Your task to perform on an android device: uninstall "Booking.com: Hotels and more" Image 0: 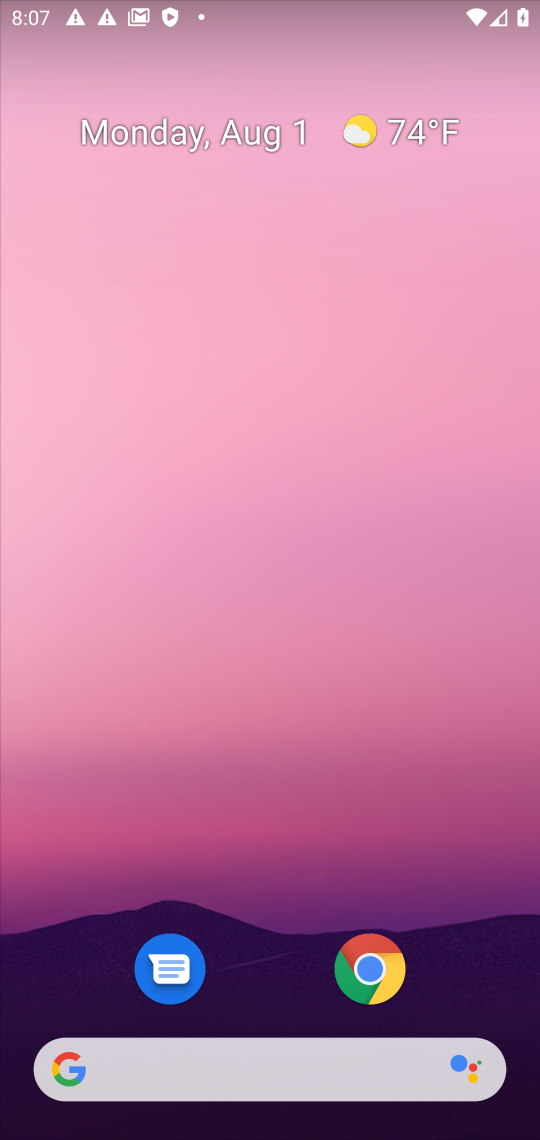
Step 0: drag from (239, 481) to (256, 173)
Your task to perform on an android device: uninstall "Booking.com: Hotels and more" Image 1: 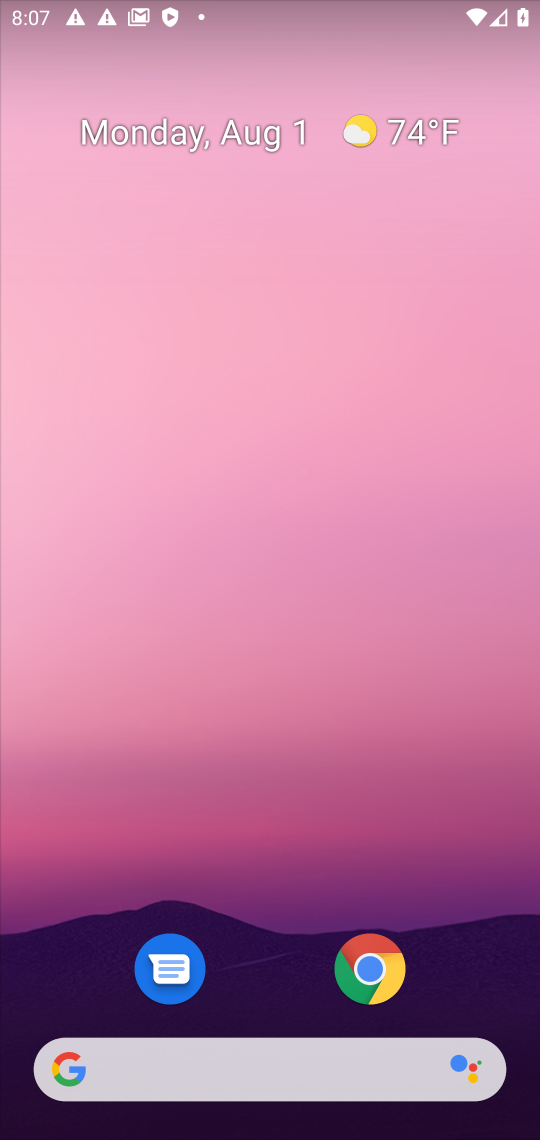
Step 1: drag from (275, 890) to (408, 0)
Your task to perform on an android device: uninstall "Booking.com: Hotels and more" Image 2: 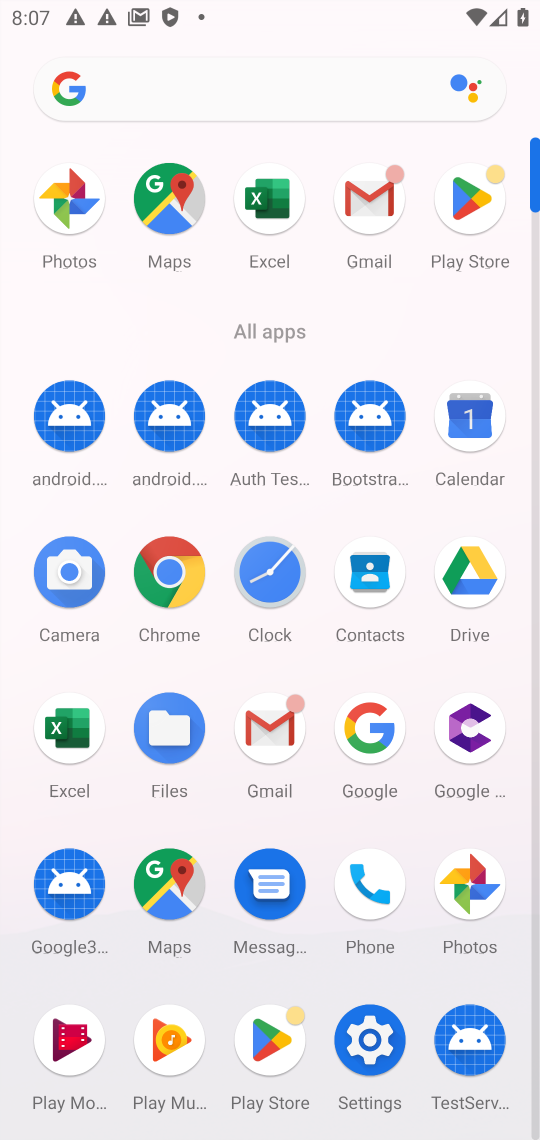
Step 2: click (463, 225)
Your task to perform on an android device: uninstall "Booking.com: Hotels and more" Image 3: 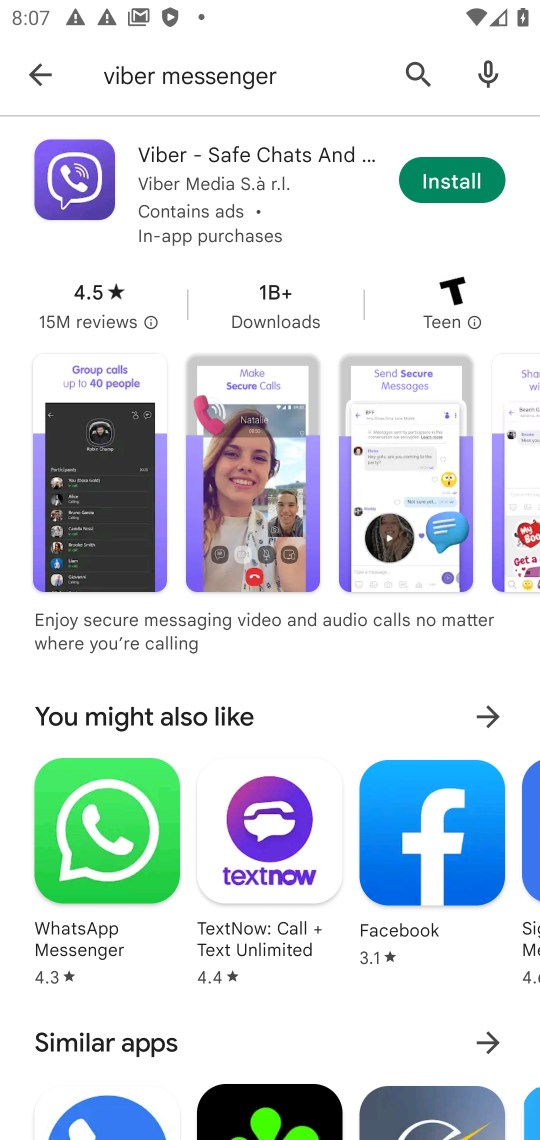
Step 3: click (35, 71)
Your task to perform on an android device: uninstall "Booking.com: Hotels and more" Image 4: 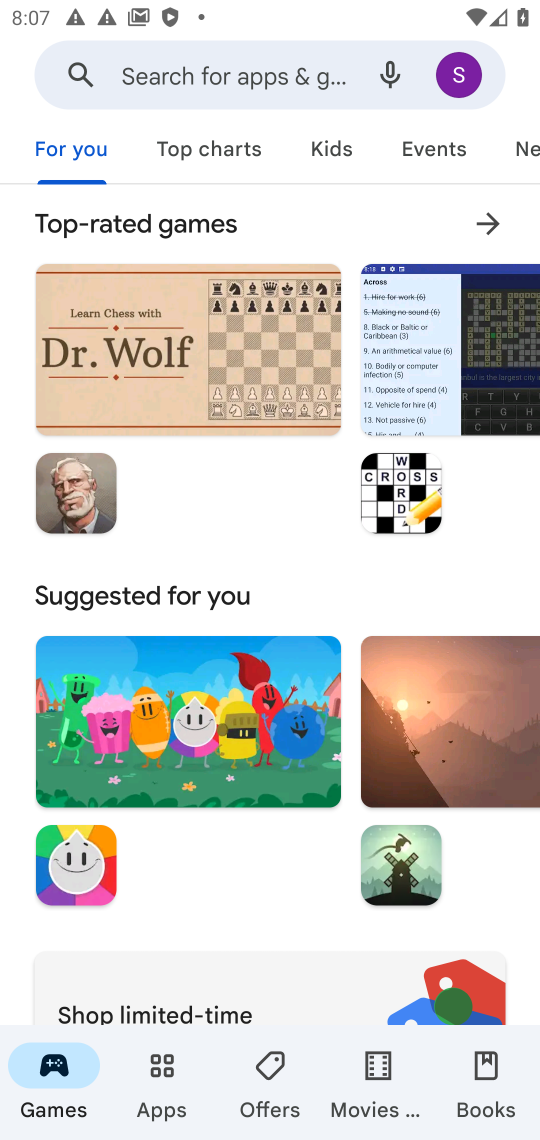
Step 4: click (241, 81)
Your task to perform on an android device: uninstall "Booking.com: Hotels and more" Image 5: 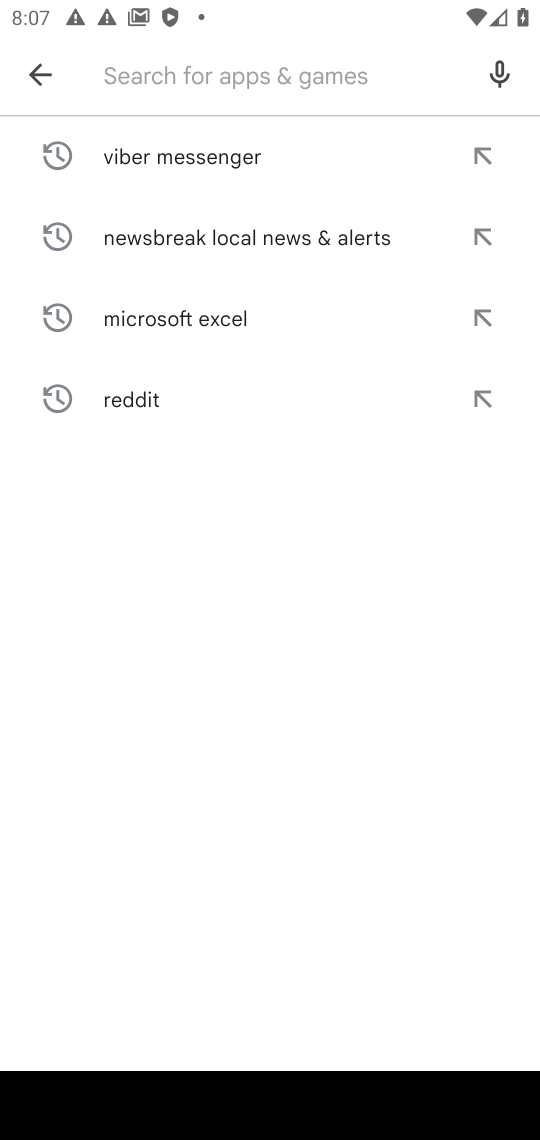
Step 5: type "Booking.com: Hotels and more"
Your task to perform on an android device: uninstall "Booking.com: Hotels and more" Image 6: 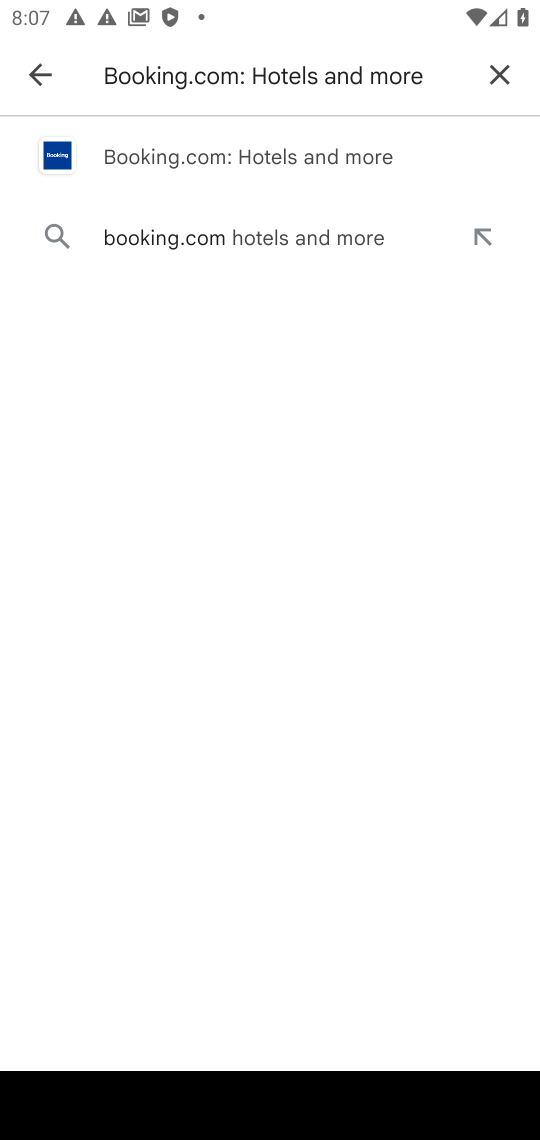
Step 6: click (336, 159)
Your task to perform on an android device: uninstall "Booking.com: Hotels and more" Image 7: 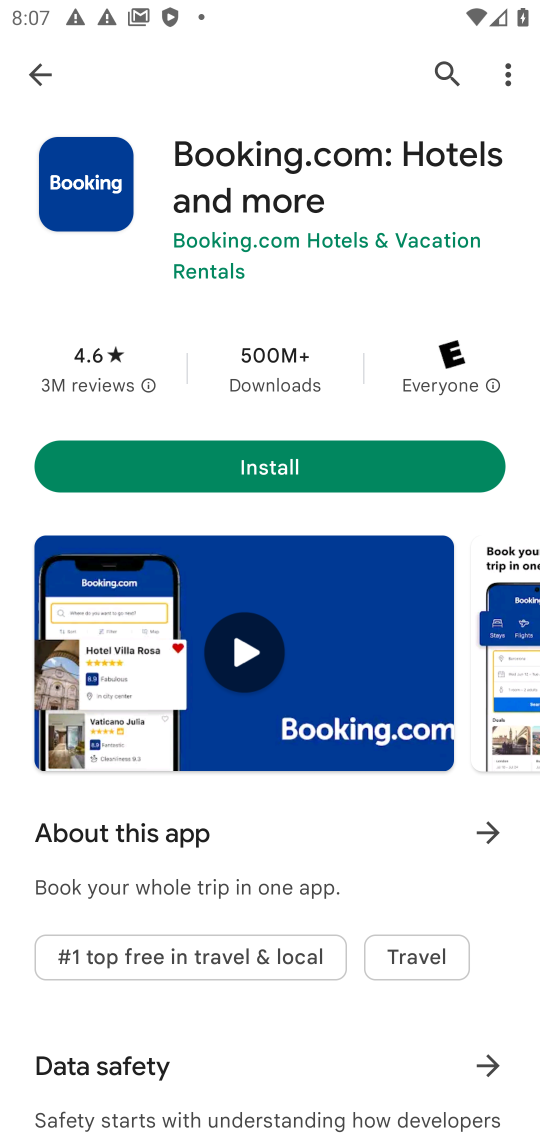
Step 7: task complete